Your task to perform on an android device: Do I have any events tomorrow? Image 0: 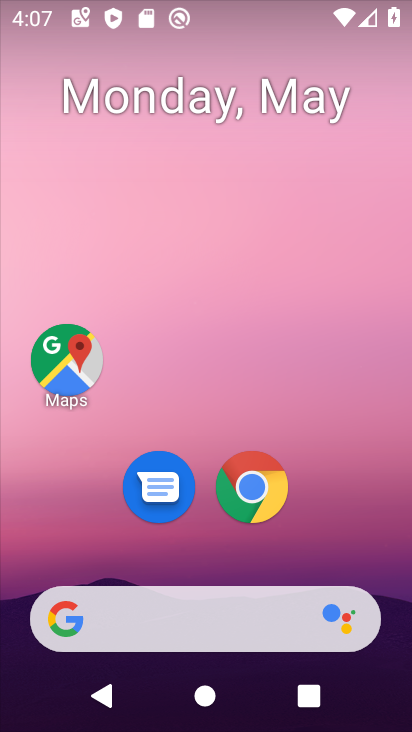
Step 0: press home button
Your task to perform on an android device: Do I have any events tomorrow? Image 1: 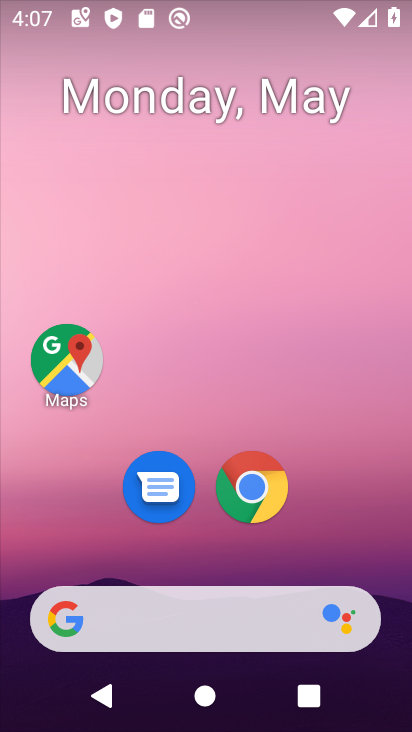
Step 1: drag from (268, 583) to (296, 310)
Your task to perform on an android device: Do I have any events tomorrow? Image 2: 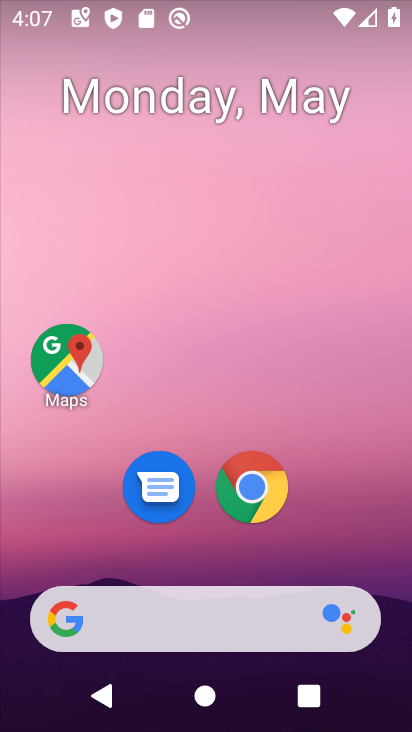
Step 2: drag from (194, 497) to (198, 267)
Your task to perform on an android device: Do I have any events tomorrow? Image 3: 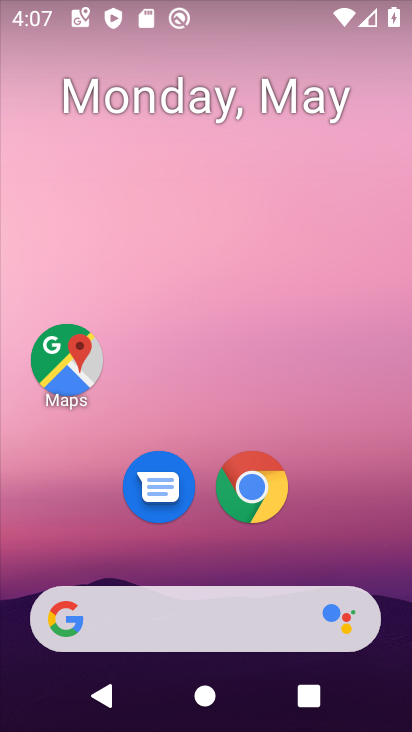
Step 3: drag from (205, 584) to (227, 286)
Your task to perform on an android device: Do I have any events tomorrow? Image 4: 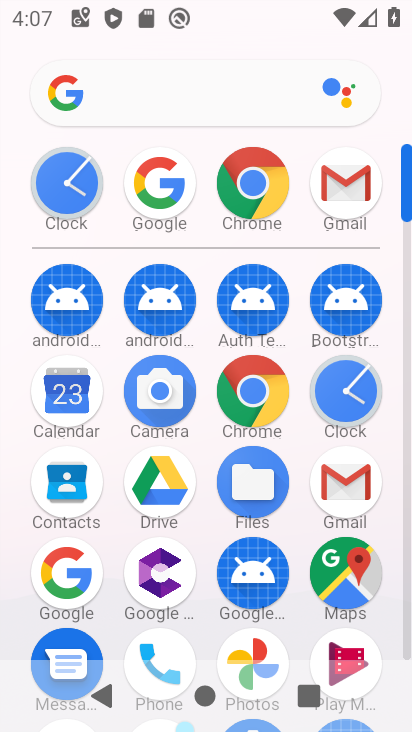
Step 4: click (77, 408)
Your task to perform on an android device: Do I have any events tomorrow? Image 5: 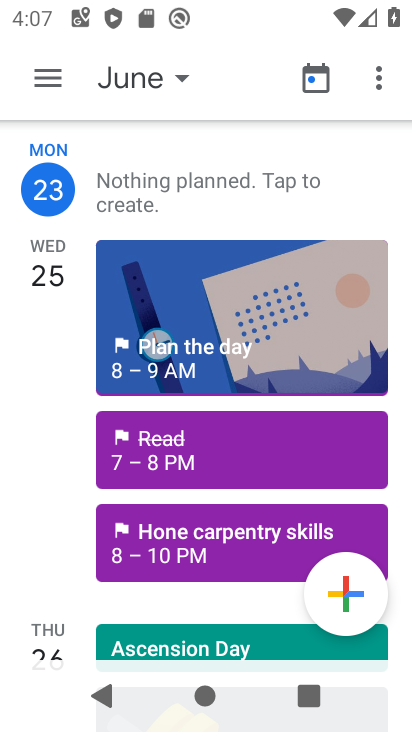
Step 5: click (160, 82)
Your task to perform on an android device: Do I have any events tomorrow? Image 6: 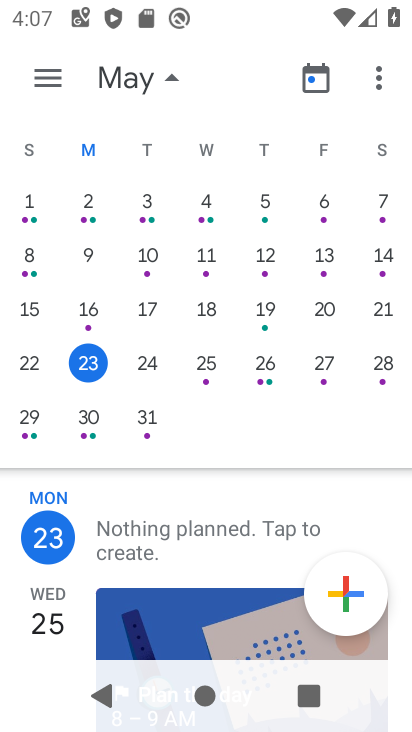
Step 6: click (147, 362)
Your task to perform on an android device: Do I have any events tomorrow? Image 7: 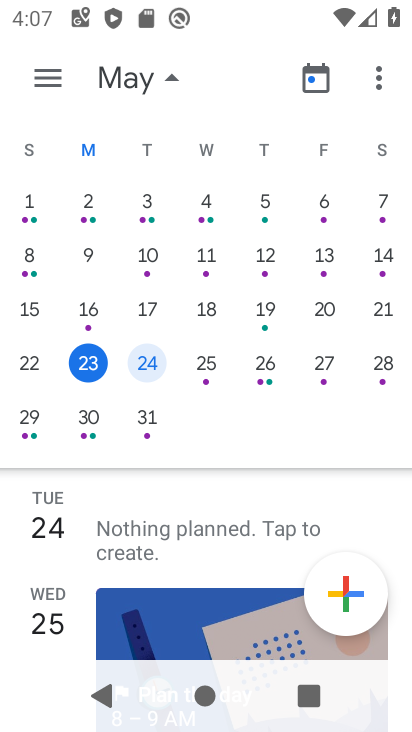
Step 7: click (180, 546)
Your task to perform on an android device: Do I have any events tomorrow? Image 8: 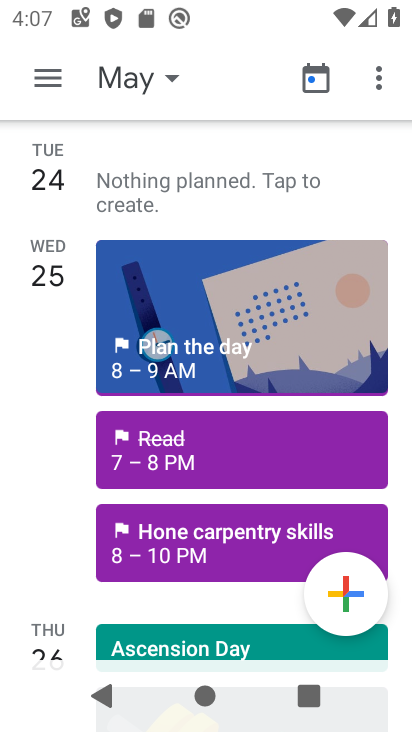
Step 8: task complete